Your task to perform on an android device: Open location settings Image 0: 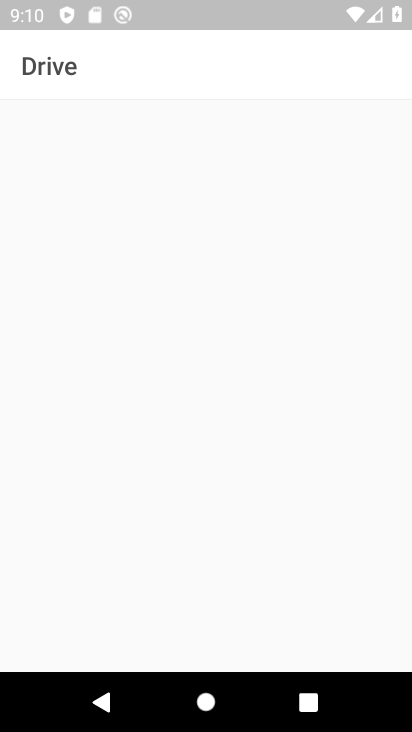
Step 0: press home button
Your task to perform on an android device: Open location settings Image 1: 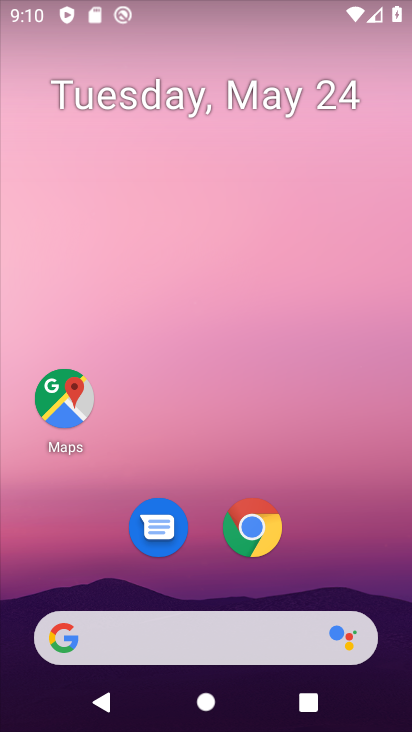
Step 1: drag from (204, 577) to (311, 115)
Your task to perform on an android device: Open location settings Image 2: 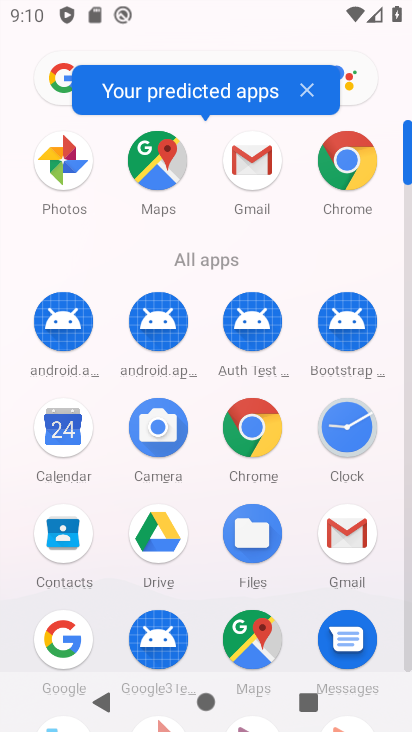
Step 2: drag from (195, 483) to (222, 175)
Your task to perform on an android device: Open location settings Image 3: 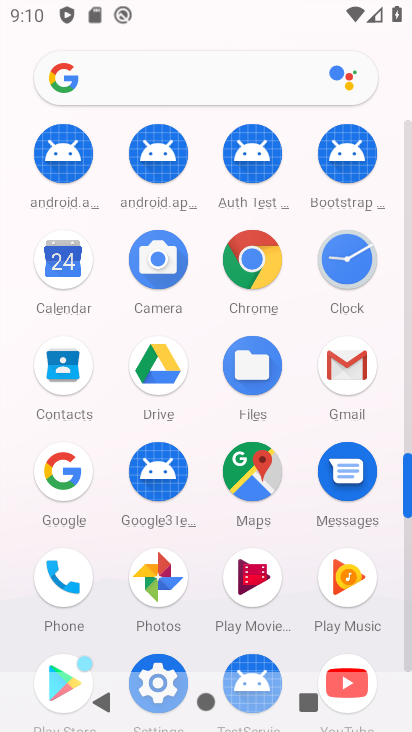
Step 3: drag from (201, 600) to (234, 169)
Your task to perform on an android device: Open location settings Image 4: 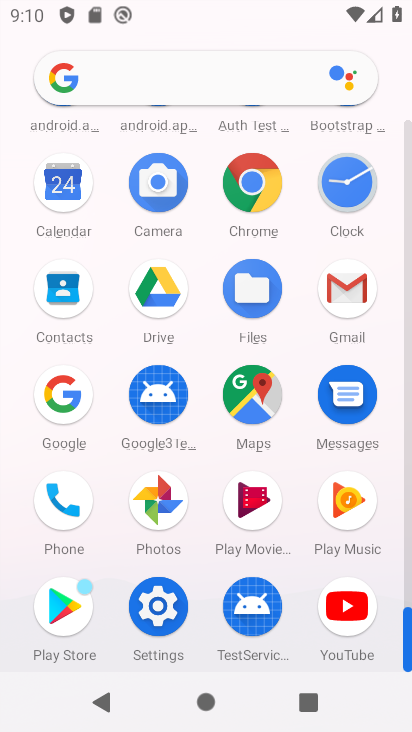
Step 4: click (161, 610)
Your task to perform on an android device: Open location settings Image 5: 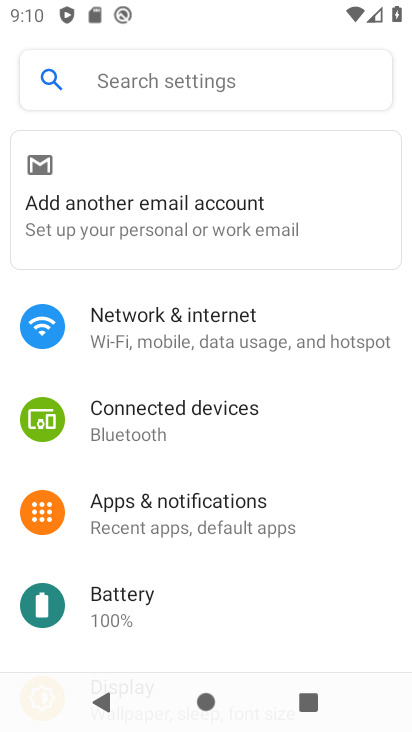
Step 5: drag from (186, 630) to (249, 97)
Your task to perform on an android device: Open location settings Image 6: 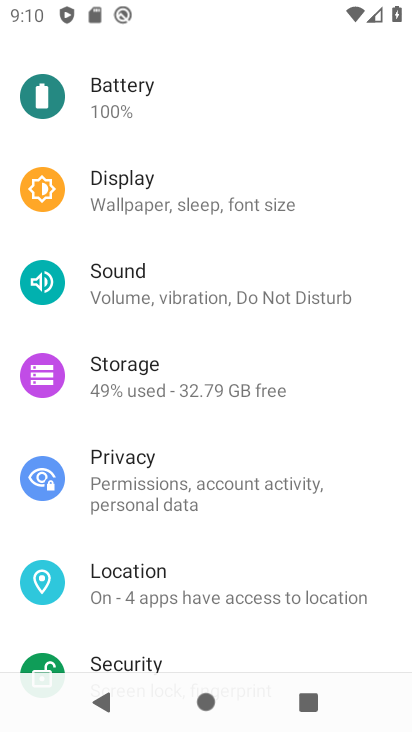
Step 6: click (213, 579)
Your task to perform on an android device: Open location settings Image 7: 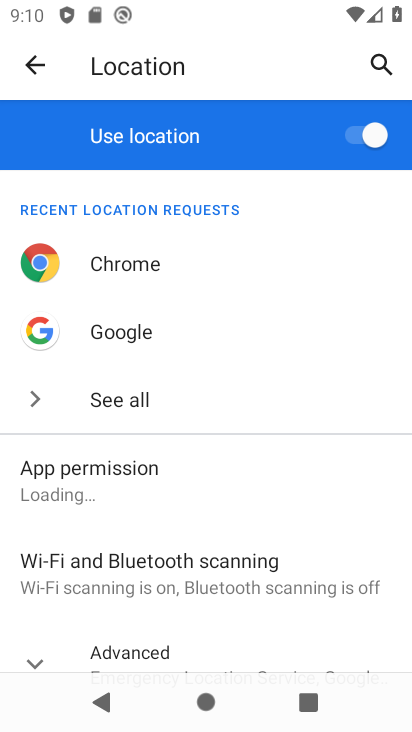
Step 7: task complete